Your task to perform on an android device: turn on the 12-hour format for clock Image 0: 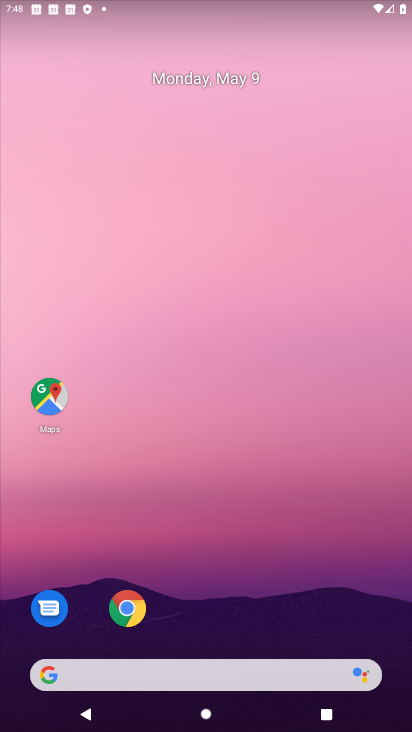
Step 0: drag from (239, 654) to (234, 95)
Your task to perform on an android device: turn on the 12-hour format for clock Image 1: 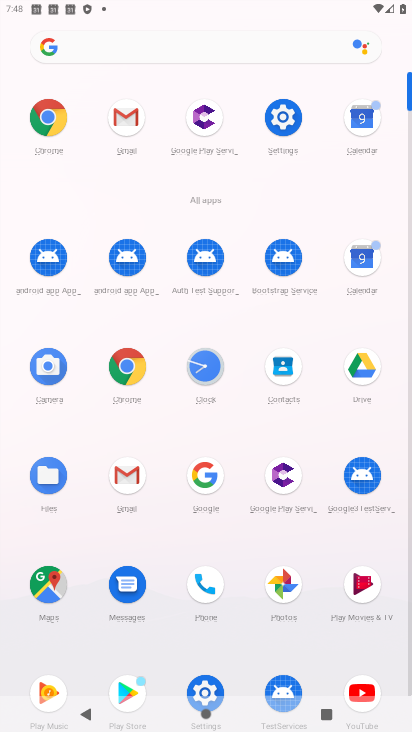
Step 1: click (198, 374)
Your task to perform on an android device: turn on the 12-hour format for clock Image 2: 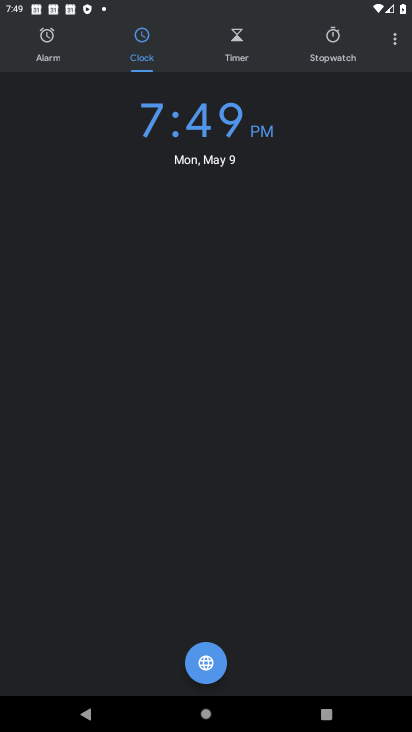
Step 2: click (396, 45)
Your task to perform on an android device: turn on the 12-hour format for clock Image 3: 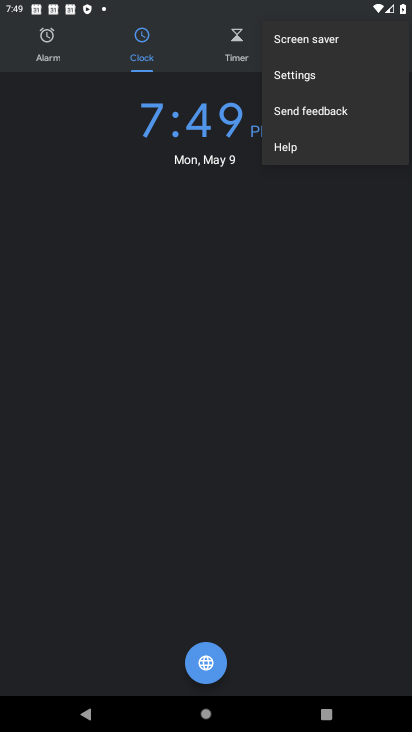
Step 3: click (308, 74)
Your task to perform on an android device: turn on the 12-hour format for clock Image 4: 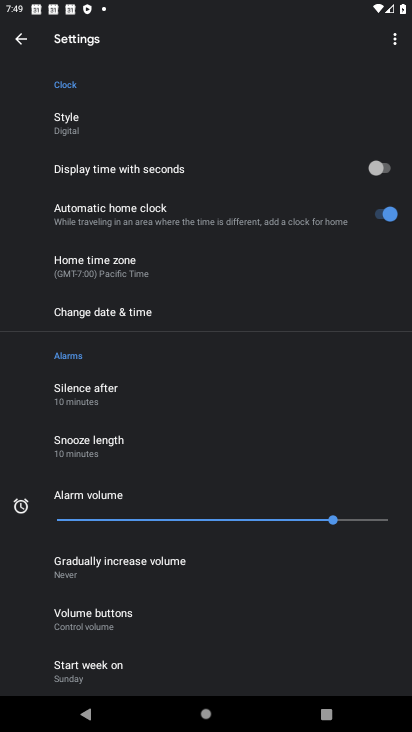
Step 4: drag from (218, 146) to (248, 524)
Your task to perform on an android device: turn on the 12-hour format for clock Image 5: 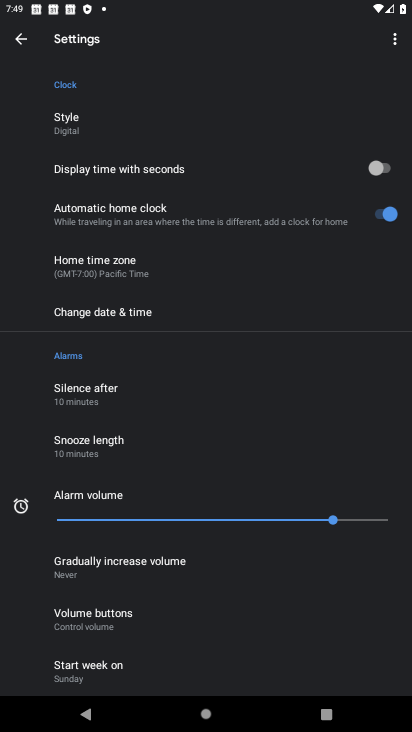
Step 5: drag from (265, 633) to (254, 149)
Your task to perform on an android device: turn on the 12-hour format for clock Image 6: 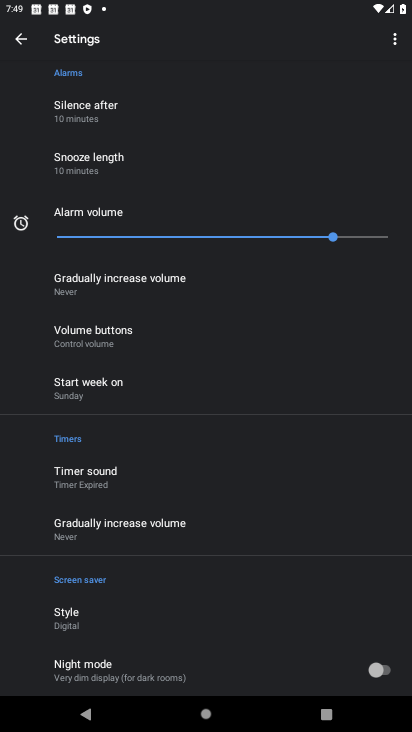
Step 6: drag from (291, 623) to (332, 144)
Your task to perform on an android device: turn on the 12-hour format for clock Image 7: 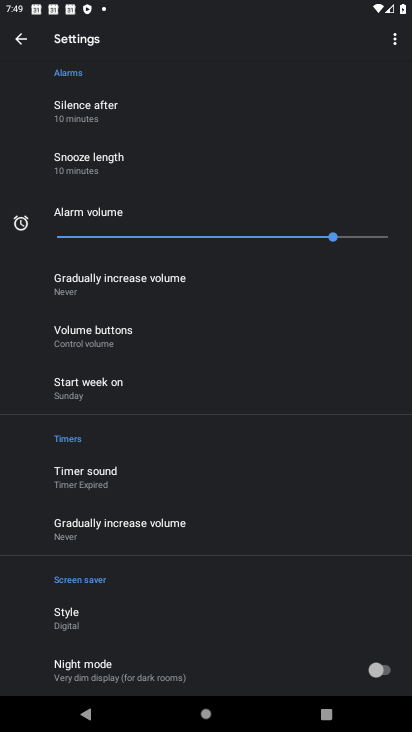
Step 7: drag from (246, 620) to (187, 68)
Your task to perform on an android device: turn on the 12-hour format for clock Image 8: 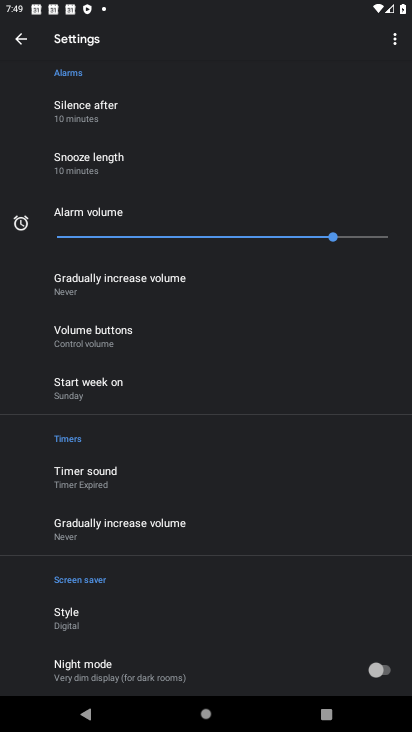
Step 8: drag from (293, 142) to (284, 718)
Your task to perform on an android device: turn on the 12-hour format for clock Image 9: 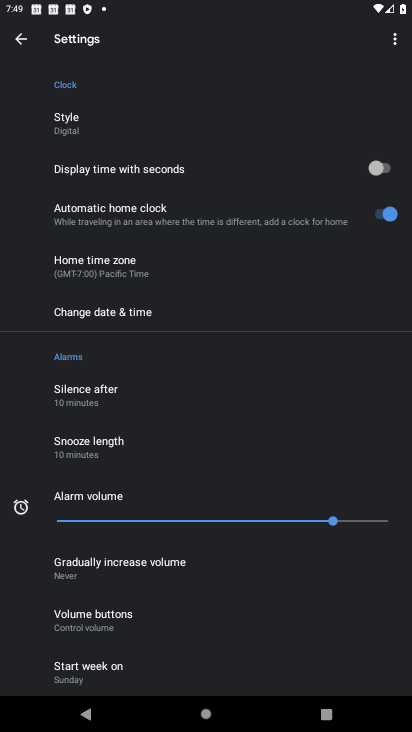
Step 9: click (154, 314)
Your task to perform on an android device: turn on the 12-hour format for clock Image 10: 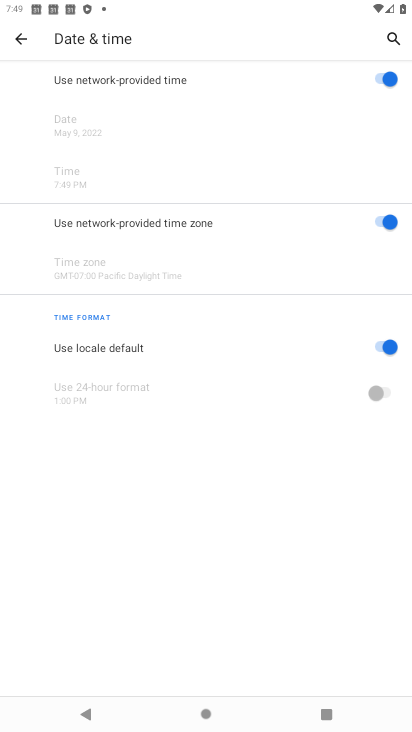
Step 10: task complete